Your task to perform on an android device: open app "Adobe Express: Graphic Design" (install if not already installed) and enter user name: "deliveries@gmail.com" and password: "regimentation" Image 0: 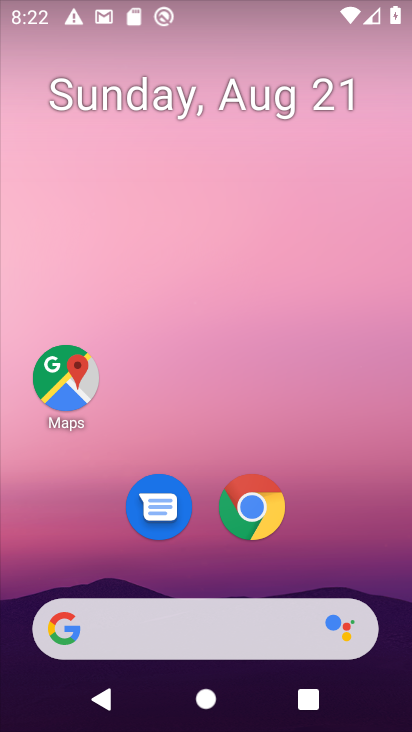
Step 0: drag from (187, 484) to (217, 12)
Your task to perform on an android device: open app "Adobe Express: Graphic Design" (install if not already installed) and enter user name: "deliveries@gmail.com" and password: "regimentation" Image 1: 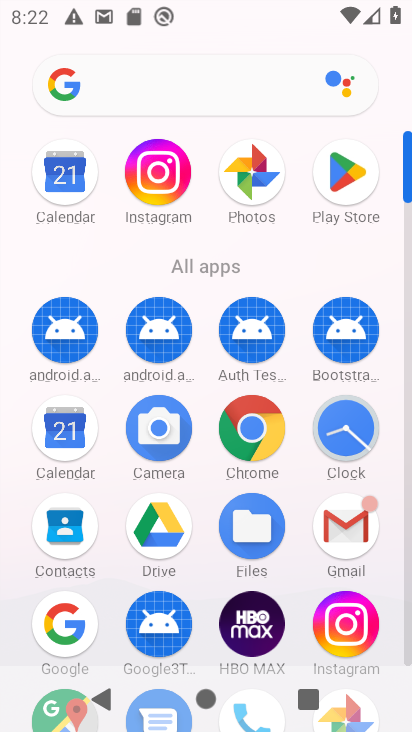
Step 1: click (342, 189)
Your task to perform on an android device: open app "Adobe Express: Graphic Design" (install if not already installed) and enter user name: "deliveries@gmail.com" and password: "regimentation" Image 2: 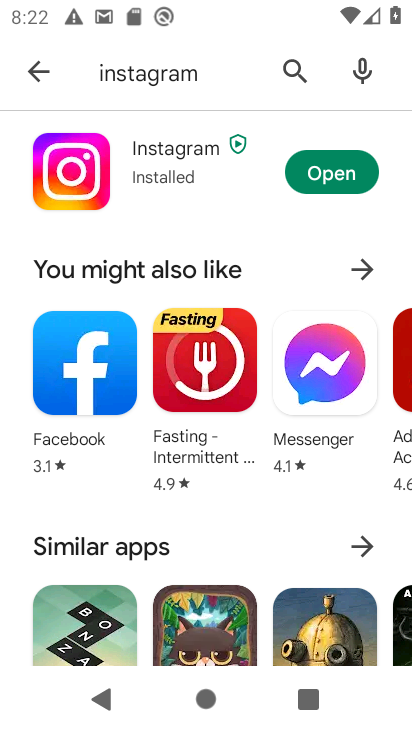
Step 2: click (34, 67)
Your task to perform on an android device: open app "Adobe Express: Graphic Design" (install if not already installed) and enter user name: "deliveries@gmail.com" and password: "regimentation" Image 3: 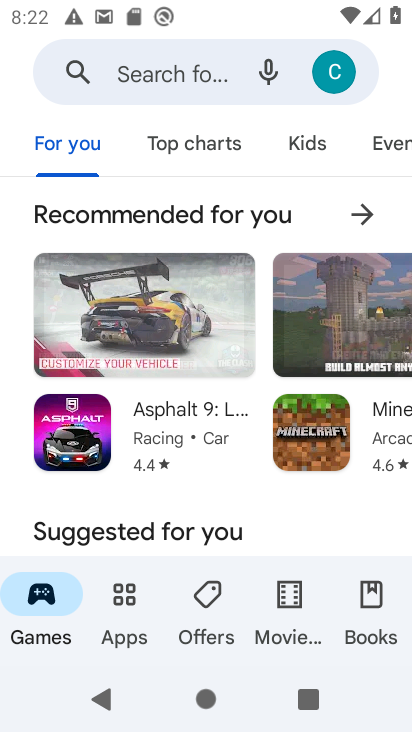
Step 3: click (146, 67)
Your task to perform on an android device: open app "Adobe Express: Graphic Design" (install if not already installed) and enter user name: "deliveries@gmail.com" and password: "regimentation" Image 4: 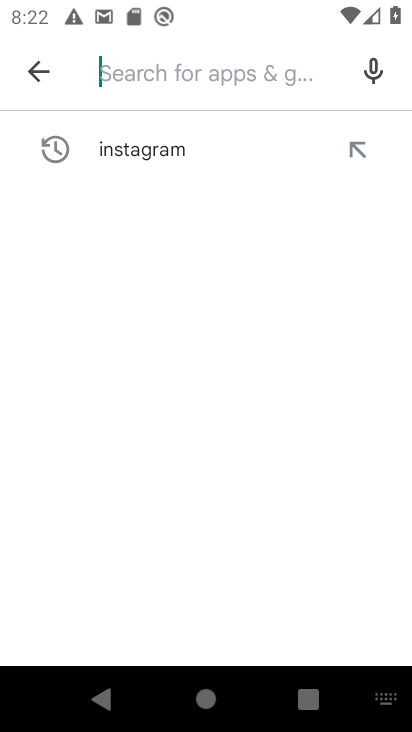
Step 4: type "Adobe Express: Graphic Design"
Your task to perform on an android device: open app "Adobe Express: Graphic Design" (install if not already installed) and enter user name: "deliveries@gmail.com" and password: "regimentation" Image 5: 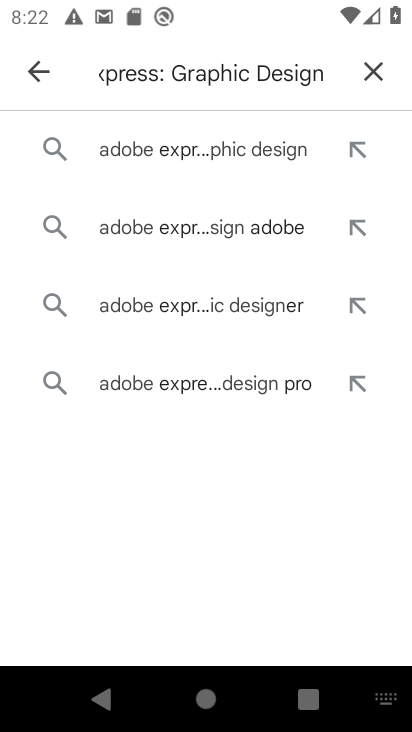
Step 5: click (227, 145)
Your task to perform on an android device: open app "Adobe Express: Graphic Design" (install if not already installed) and enter user name: "deliveries@gmail.com" and password: "regimentation" Image 6: 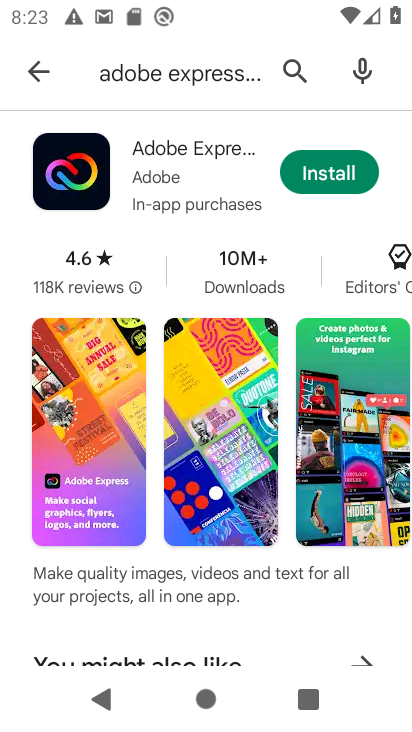
Step 6: click (322, 173)
Your task to perform on an android device: open app "Adobe Express: Graphic Design" (install if not already installed) and enter user name: "deliveries@gmail.com" and password: "regimentation" Image 7: 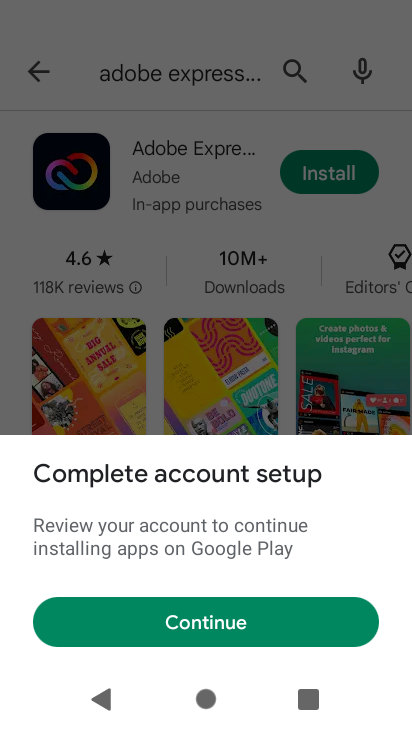
Step 7: click (204, 633)
Your task to perform on an android device: open app "Adobe Express: Graphic Design" (install if not already installed) and enter user name: "deliveries@gmail.com" and password: "regimentation" Image 8: 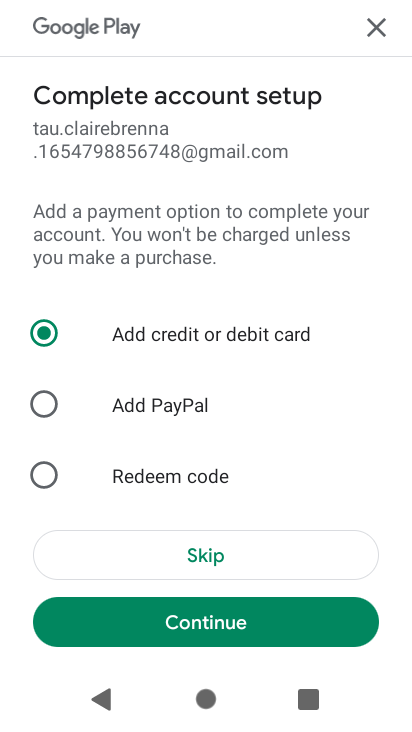
Step 8: click (197, 536)
Your task to perform on an android device: open app "Adobe Express: Graphic Design" (install if not already installed) and enter user name: "deliveries@gmail.com" and password: "regimentation" Image 9: 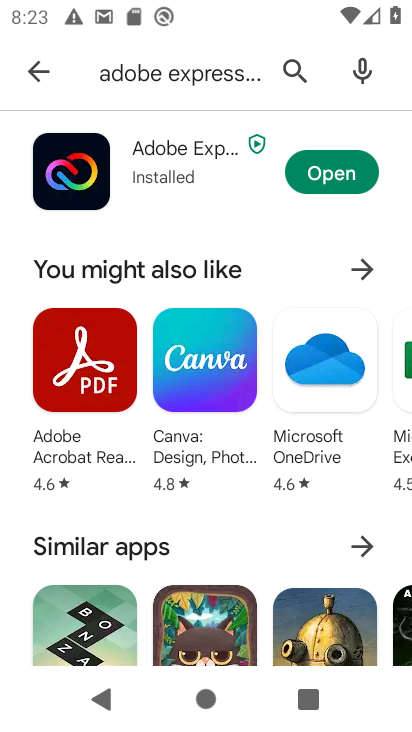
Step 9: click (326, 169)
Your task to perform on an android device: open app "Adobe Express: Graphic Design" (install if not already installed) and enter user name: "deliveries@gmail.com" and password: "regimentation" Image 10: 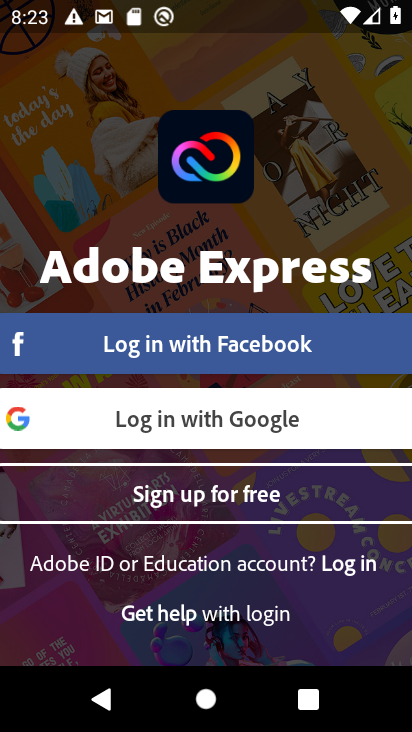
Step 10: task complete